Your task to perform on an android device: Empty the shopping cart on costco. Add razer naga to the cart on costco, then select checkout. Image 0: 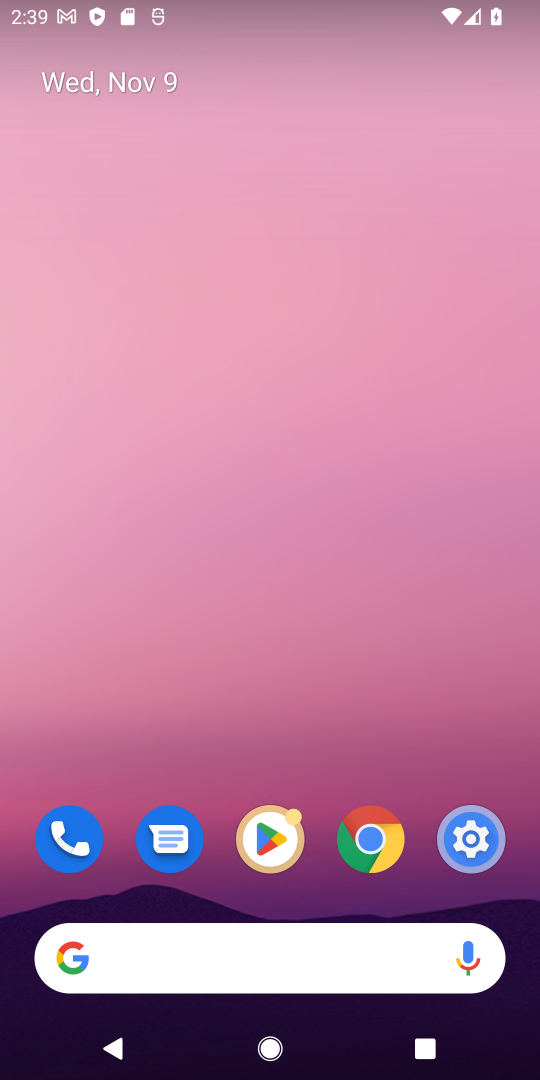
Step 0: click (267, 958)
Your task to perform on an android device: Empty the shopping cart on costco. Add razer naga to the cart on costco, then select checkout. Image 1: 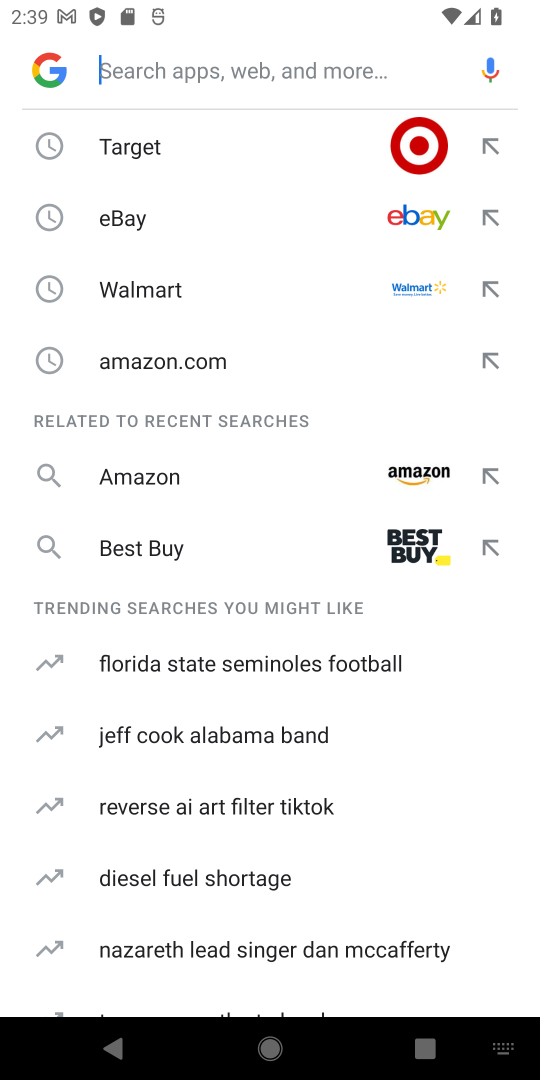
Step 1: type "costco"
Your task to perform on an android device: Empty the shopping cart on costco. Add razer naga to the cart on costco, then select checkout. Image 2: 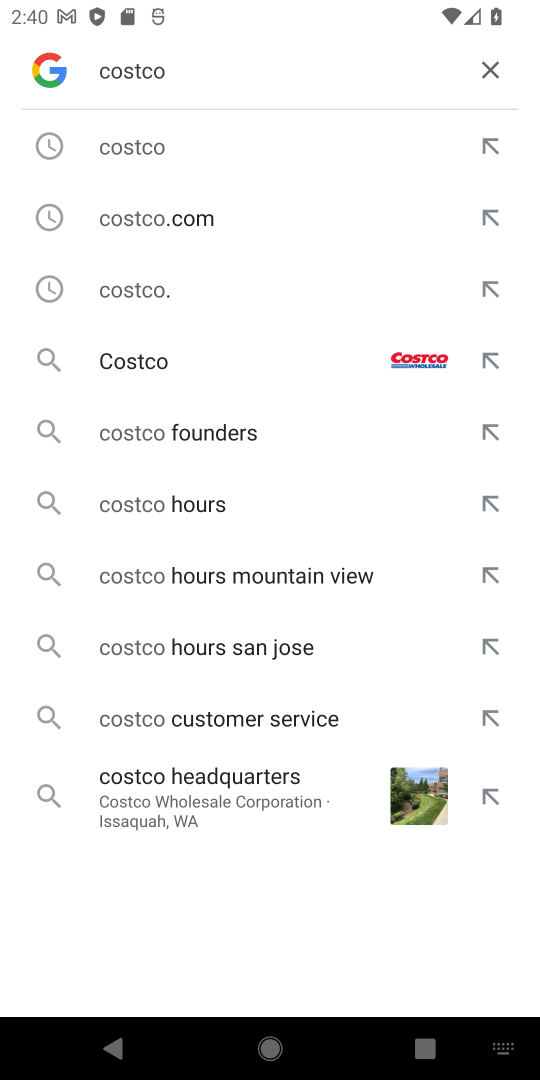
Step 2: click (207, 247)
Your task to perform on an android device: Empty the shopping cart on costco. Add razer naga to the cart on costco, then select checkout. Image 3: 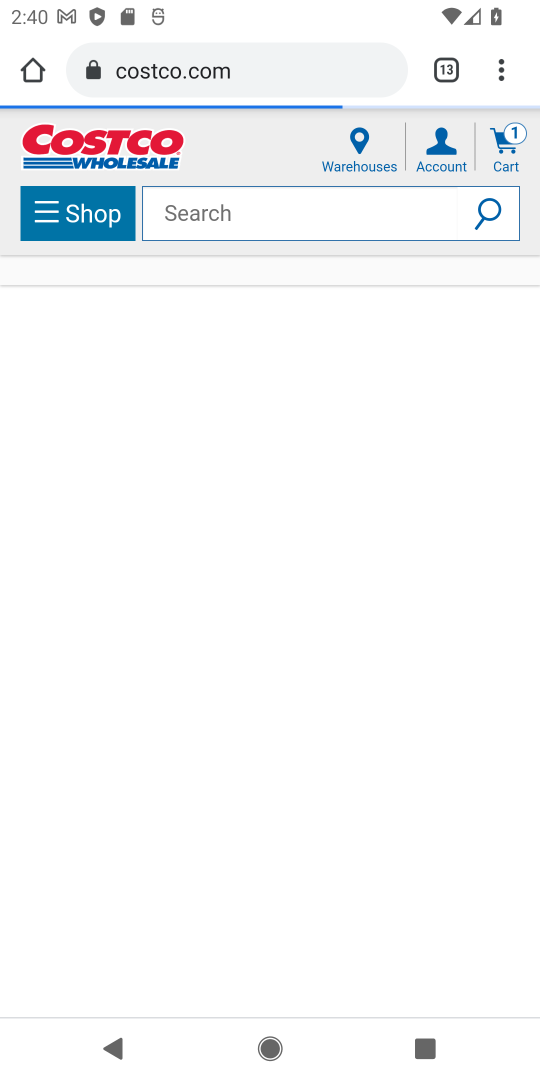
Step 3: click (286, 202)
Your task to perform on an android device: Empty the shopping cart on costco. Add razer naga to the cart on costco, then select checkout. Image 4: 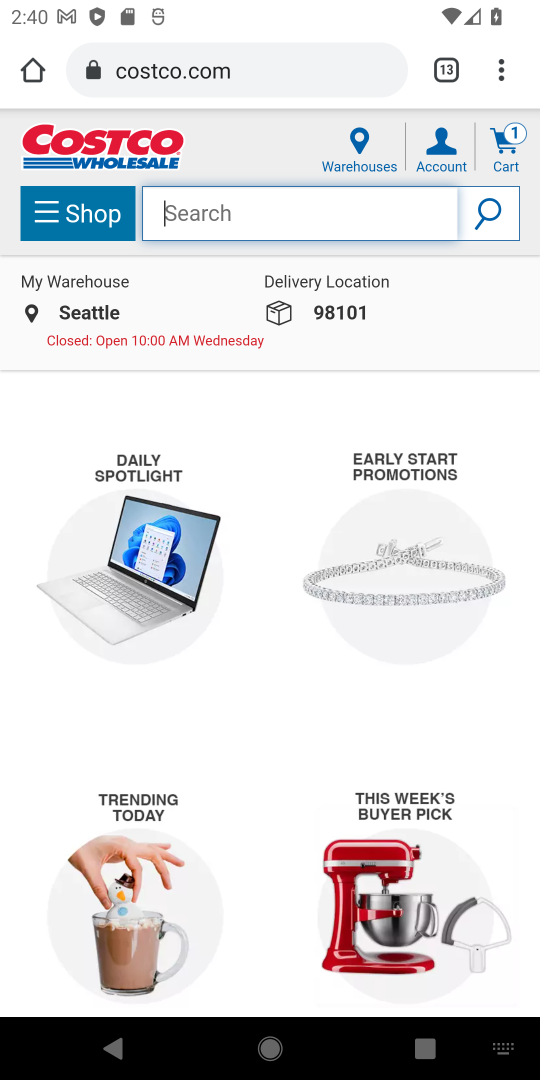
Step 4: type "razer naga"
Your task to perform on an android device: Empty the shopping cart on costco. Add razer naga to the cart on costco, then select checkout. Image 5: 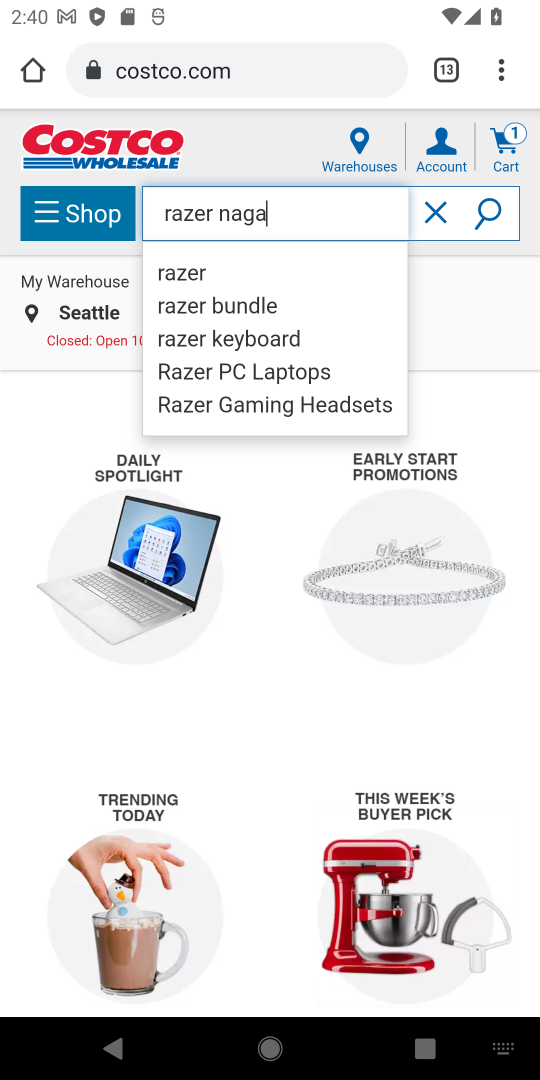
Step 5: click (472, 212)
Your task to perform on an android device: Empty the shopping cart on costco. Add razer naga to the cart on costco, then select checkout. Image 6: 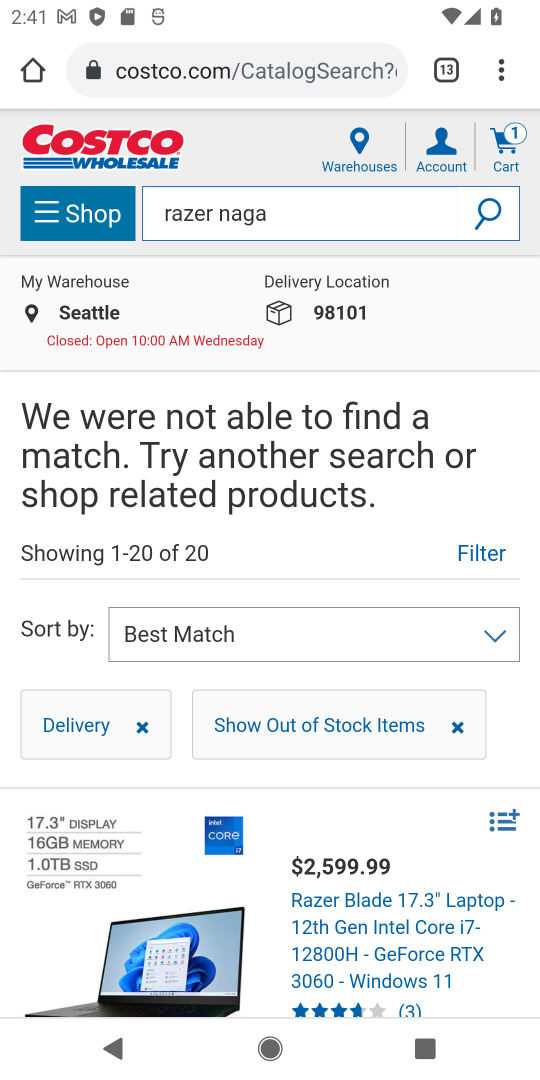
Step 6: drag from (267, 950) to (270, 345)
Your task to perform on an android device: Empty the shopping cart on costco. Add razer naga to the cart on costco, then select checkout. Image 7: 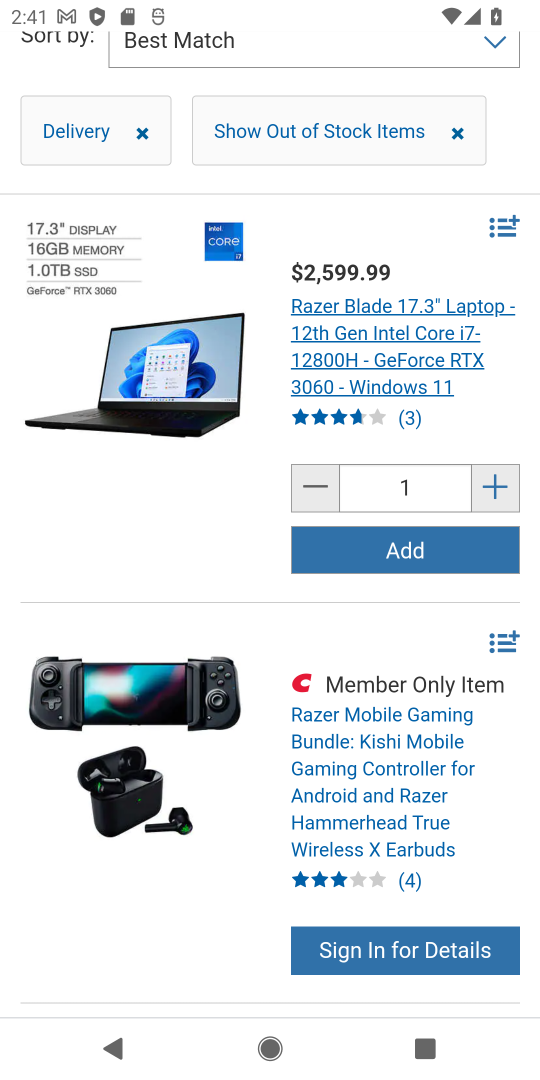
Step 7: click (407, 569)
Your task to perform on an android device: Empty the shopping cart on costco. Add razer naga to the cart on costco, then select checkout. Image 8: 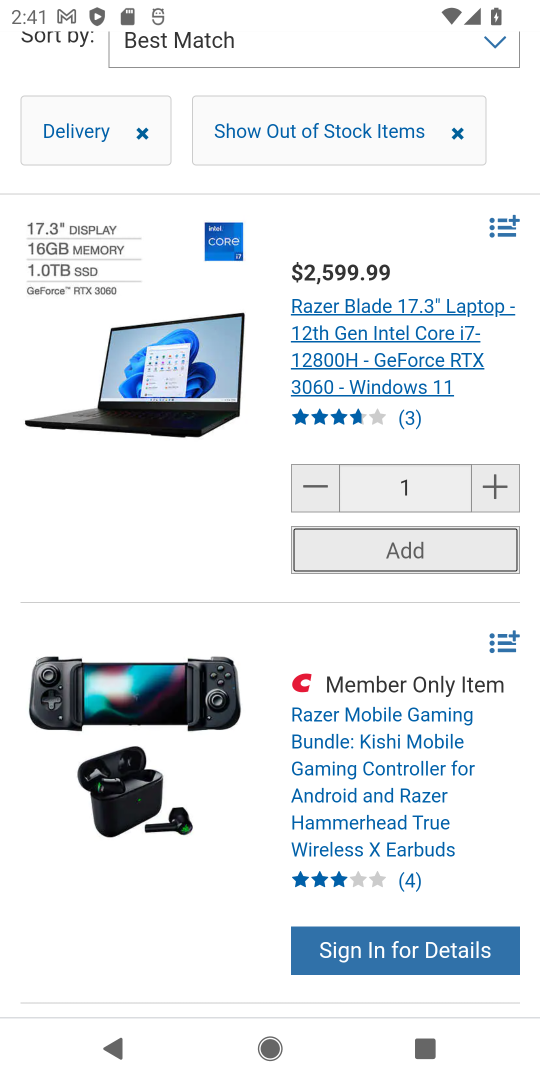
Step 8: task complete